Your task to perform on an android device: make emails show in primary in the gmail app Image 0: 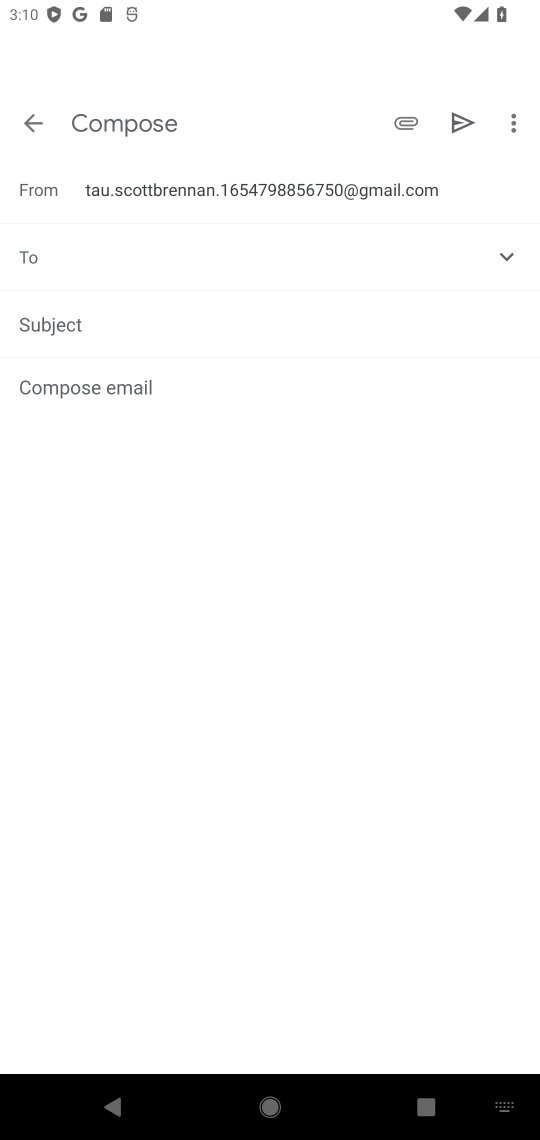
Step 0: press home button
Your task to perform on an android device: make emails show in primary in the gmail app Image 1: 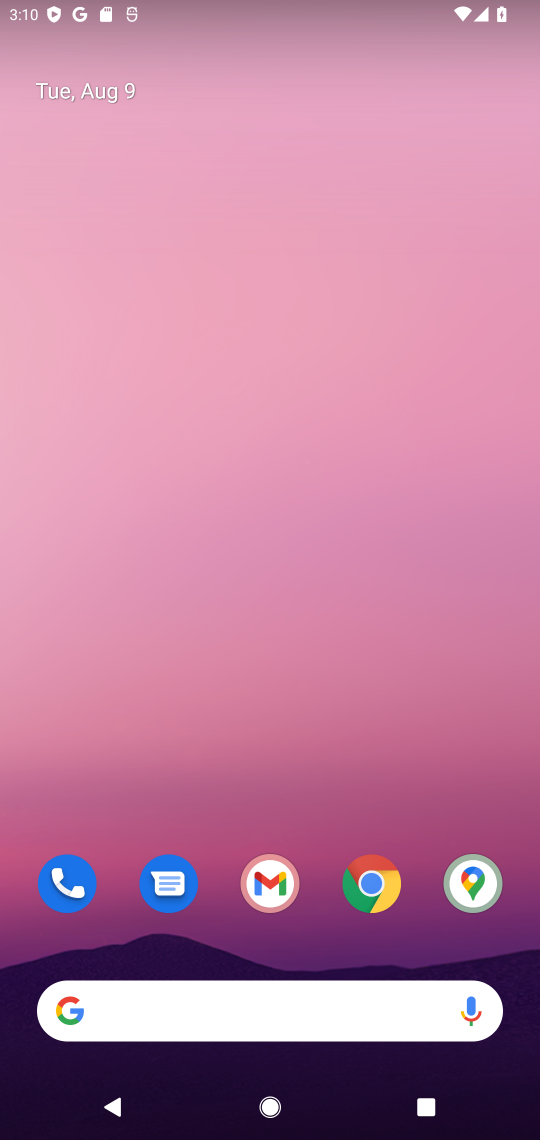
Step 1: click (269, 885)
Your task to perform on an android device: make emails show in primary in the gmail app Image 2: 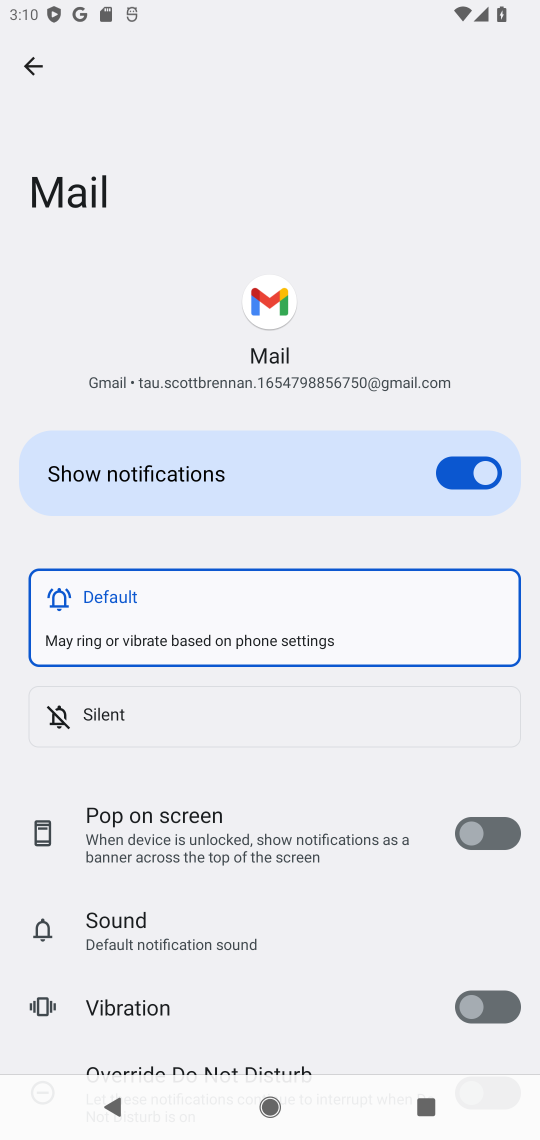
Step 2: press back button
Your task to perform on an android device: make emails show in primary in the gmail app Image 3: 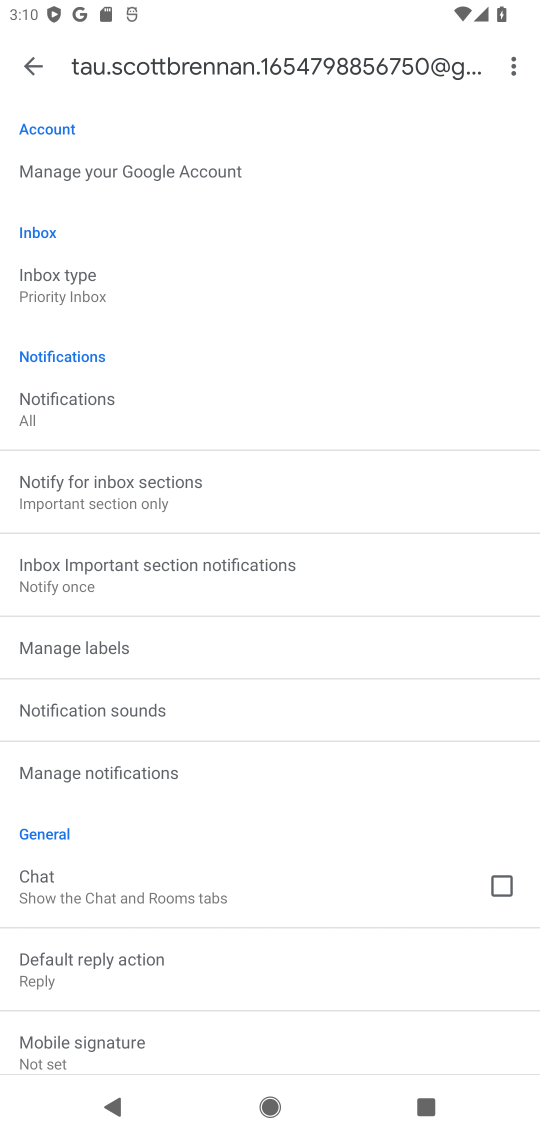
Step 3: click (48, 271)
Your task to perform on an android device: make emails show in primary in the gmail app Image 4: 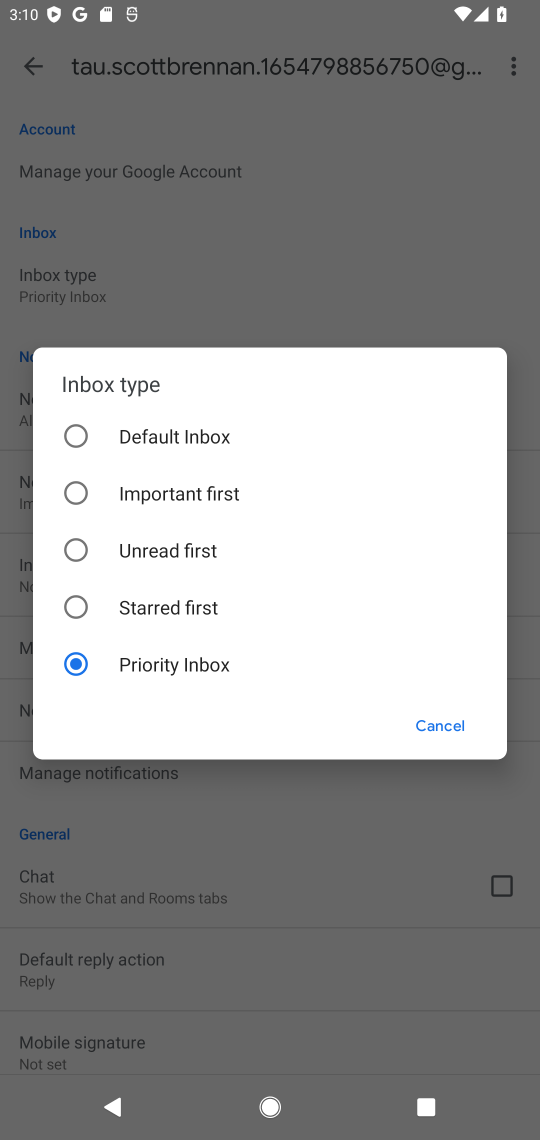
Step 4: click (77, 440)
Your task to perform on an android device: make emails show in primary in the gmail app Image 5: 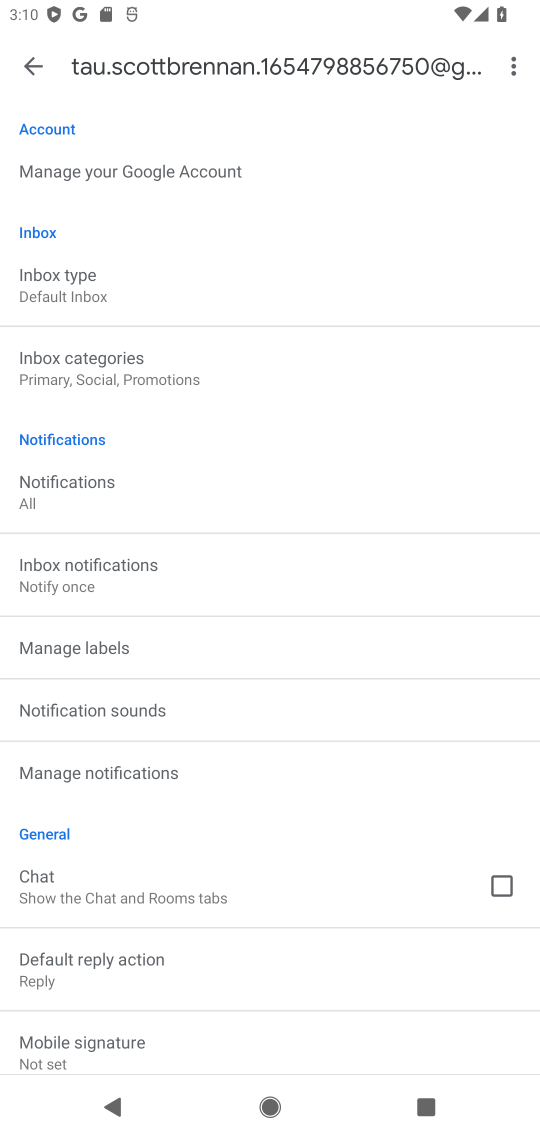
Step 5: click (117, 368)
Your task to perform on an android device: make emails show in primary in the gmail app Image 6: 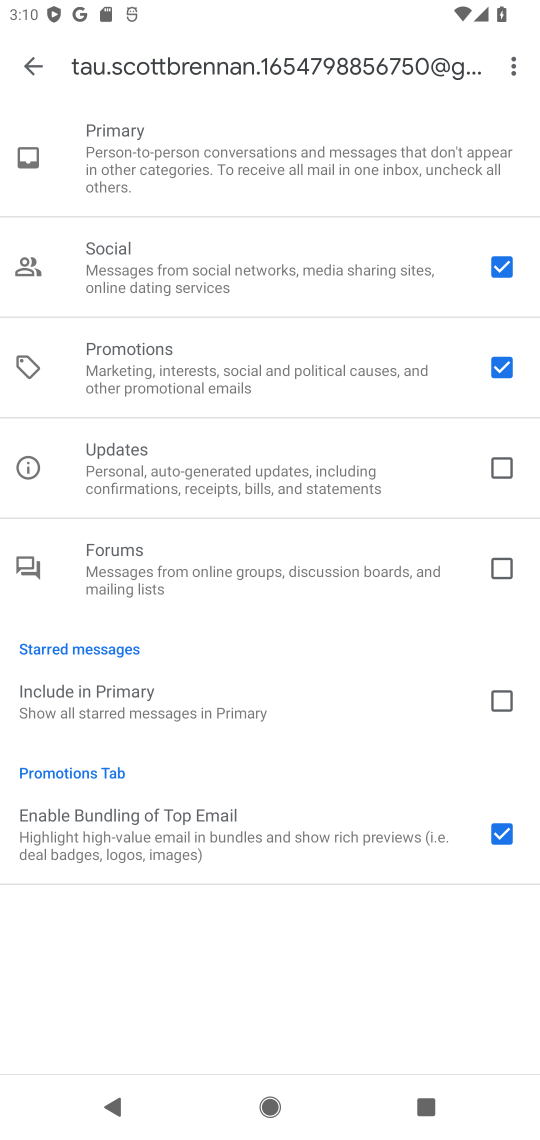
Step 6: click (501, 364)
Your task to perform on an android device: make emails show in primary in the gmail app Image 7: 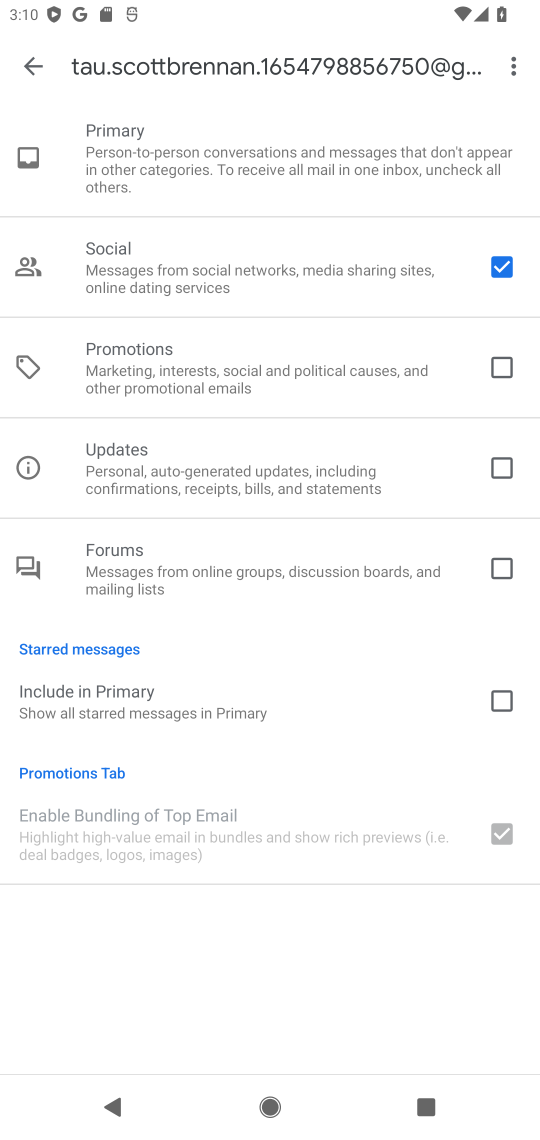
Step 7: click (502, 266)
Your task to perform on an android device: make emails show in primary in the gmail app Image 8: 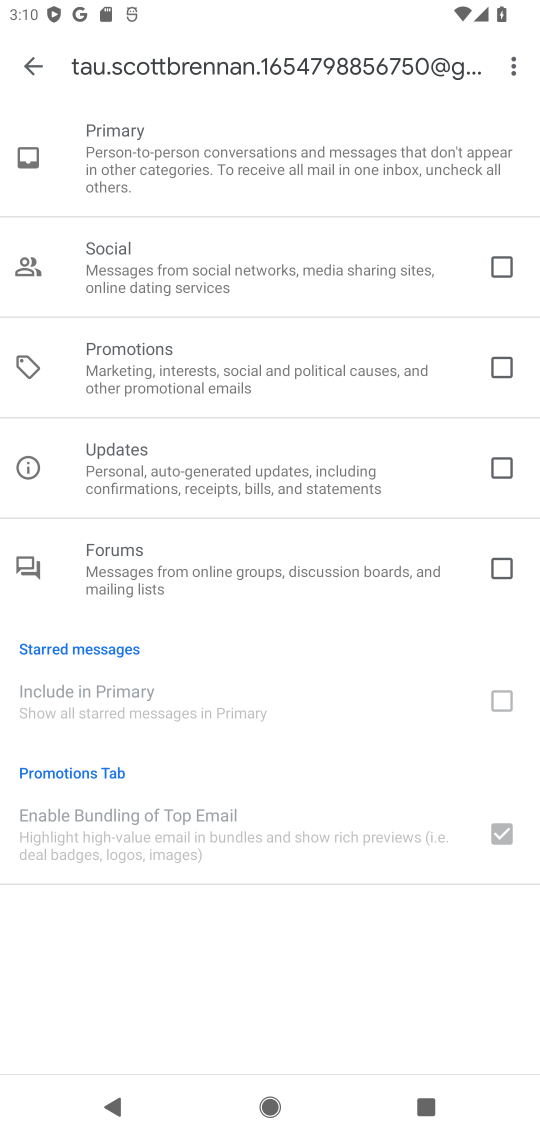
Step 8: task complete